Your task to perform on an android device: Go to notification settings Image 0: 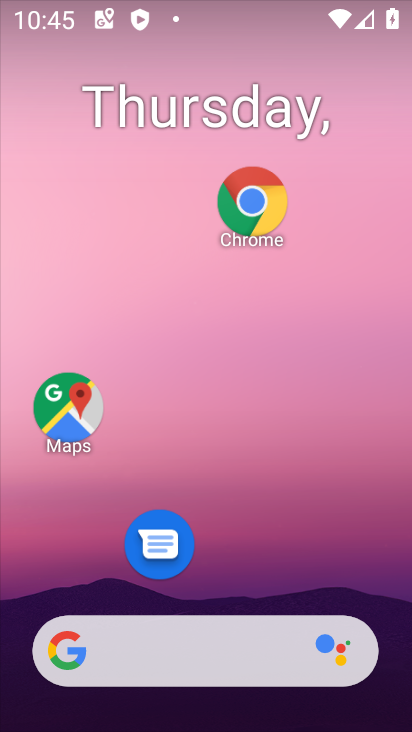
Step 0: drag from (225, 568) to (228, 30)
Your task to perform on an android device: Go to notification settings Image 1: 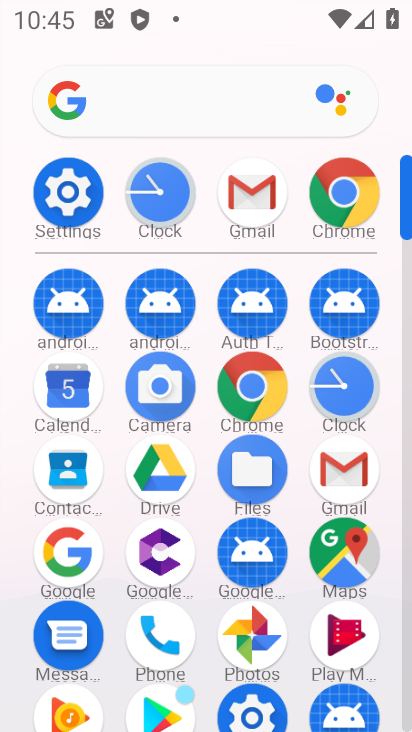
Step 1: click (63, 192)
Your task to perform on an android device: Go to notification settings Image 2: 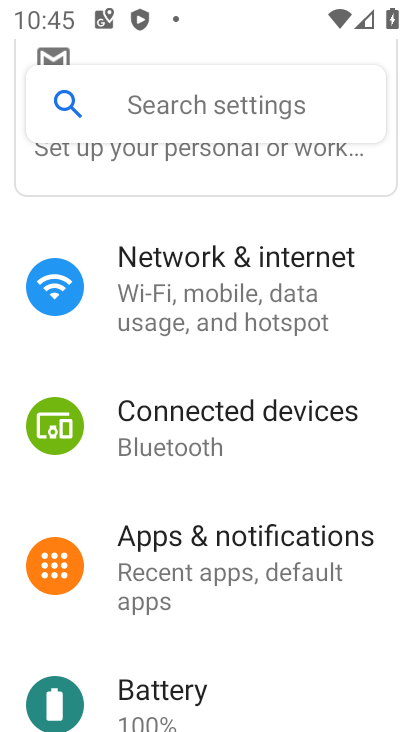
Step 2: click (223, 546)
Your task to perform on an android device: Go to notification settings Image 3: 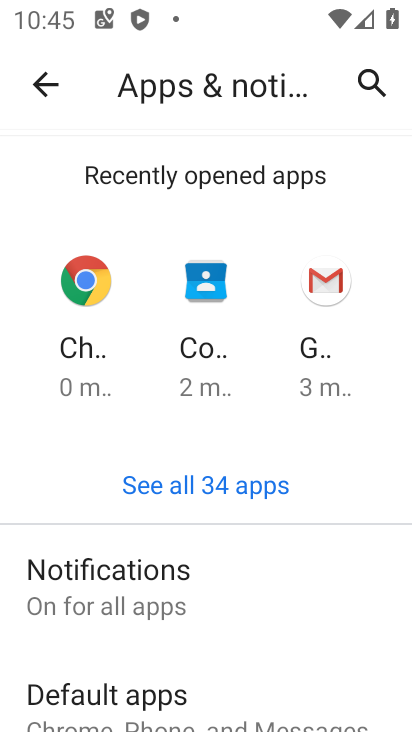
Step 3: click (200, 580)
Your task to perform on an android device: Go to notification settings Image 4: 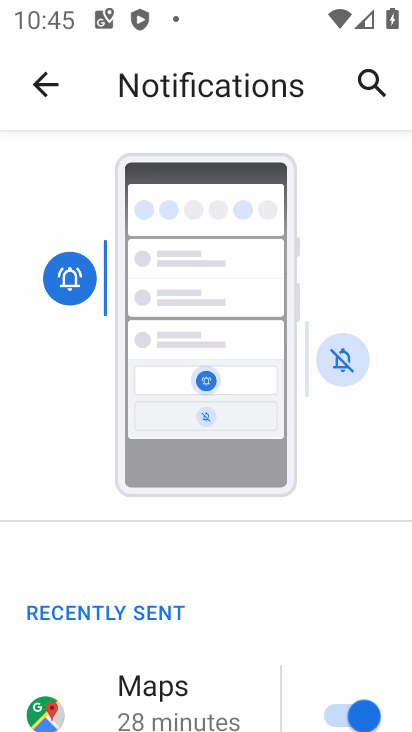
Step 4: drag from (233, 667) to (269, 78)
Your task to perform on an android device: Go to notification settings Image 5: 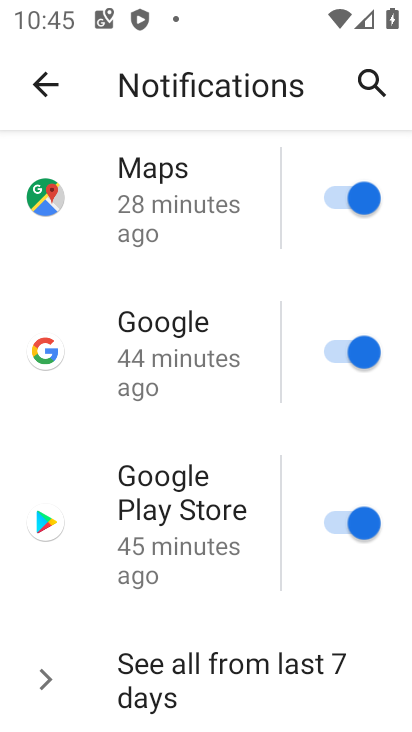
Step 5: drag from (241, 595) to (264, 70)
Your task to perform on an android device: Go to notification settings Image 6: 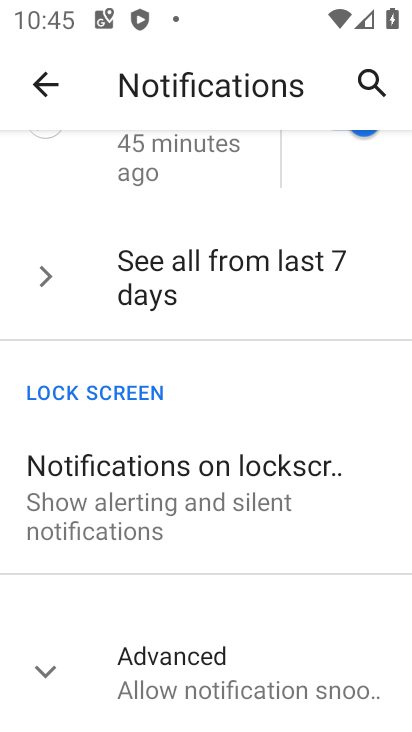
Step 6: click (41, 663)
Your task to perform on an android device: Go to notification settings Image 7: 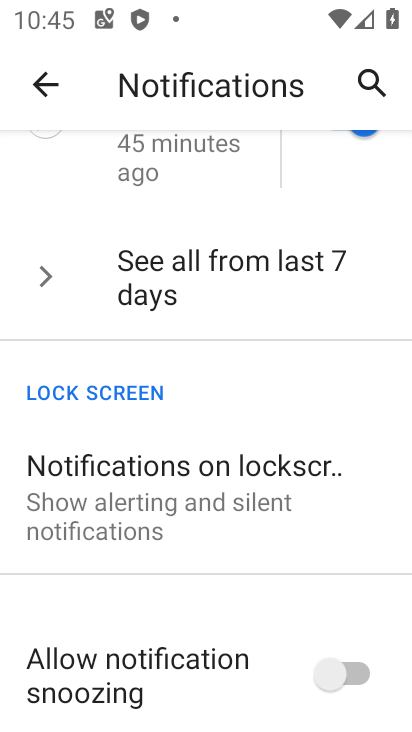
Step 7: task complete